Your task to perform on an android device: open app "Yahoo Mail" (install if not already installed) Image 0: 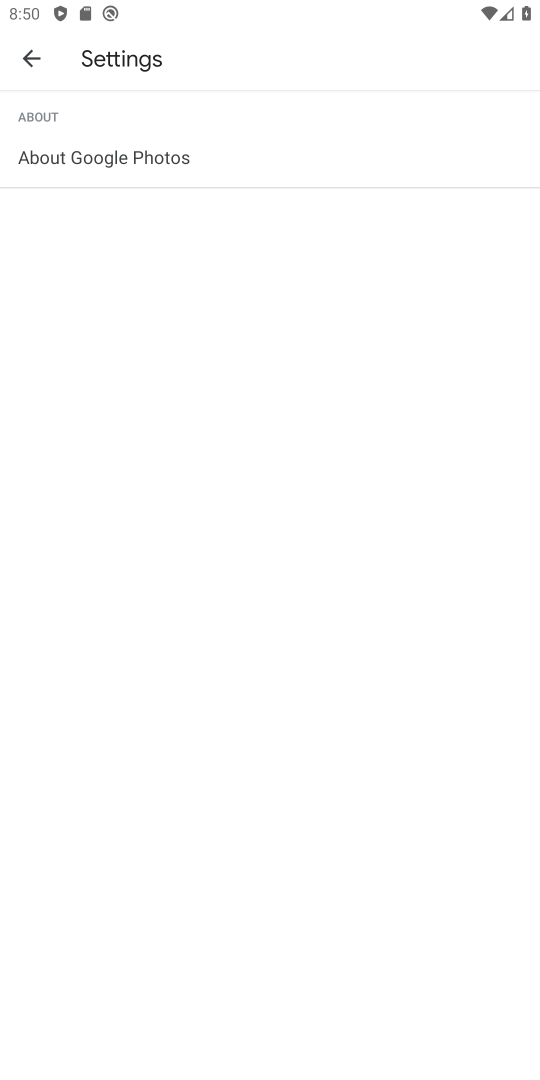
Step 0: press home button
Your task to perform on an android device: open app "Yahoo Mail" (install if not already installed) Image 1: 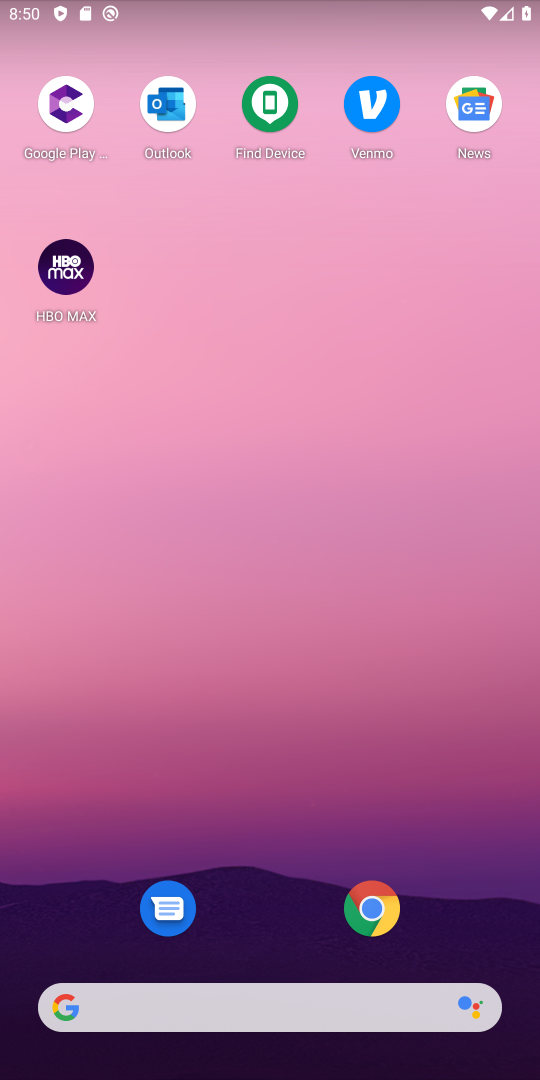
Step 1: drag from (257, 967) to (261, 422)
Your task to perform on an android device: open app "Yahoo Mail" (install if not already installed) Image 2: 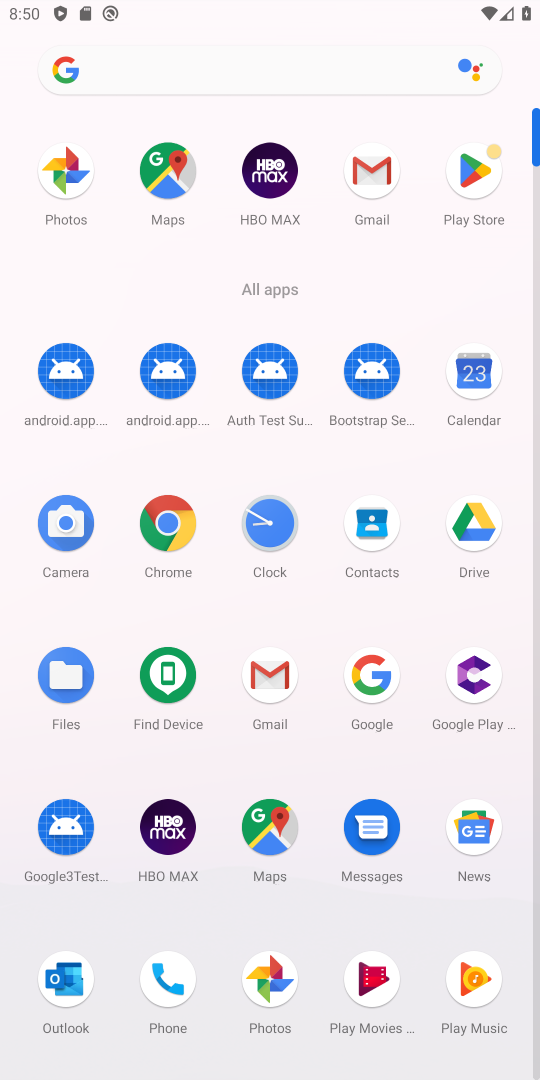
Step 2: click (482, 184)
Your task to perform on an android device: open app "Yahoo Mail" (install if not already installed) Image 3: 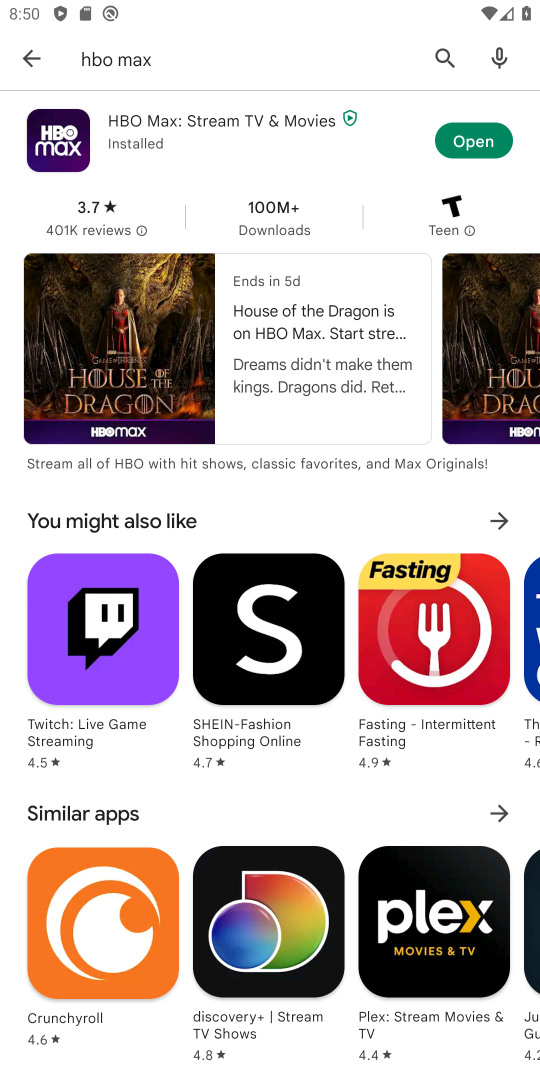
Step 3: click (167, 62)
Your task to perform on an android device: open app "Yahoo Mail" (install if not already installed) Image 4: 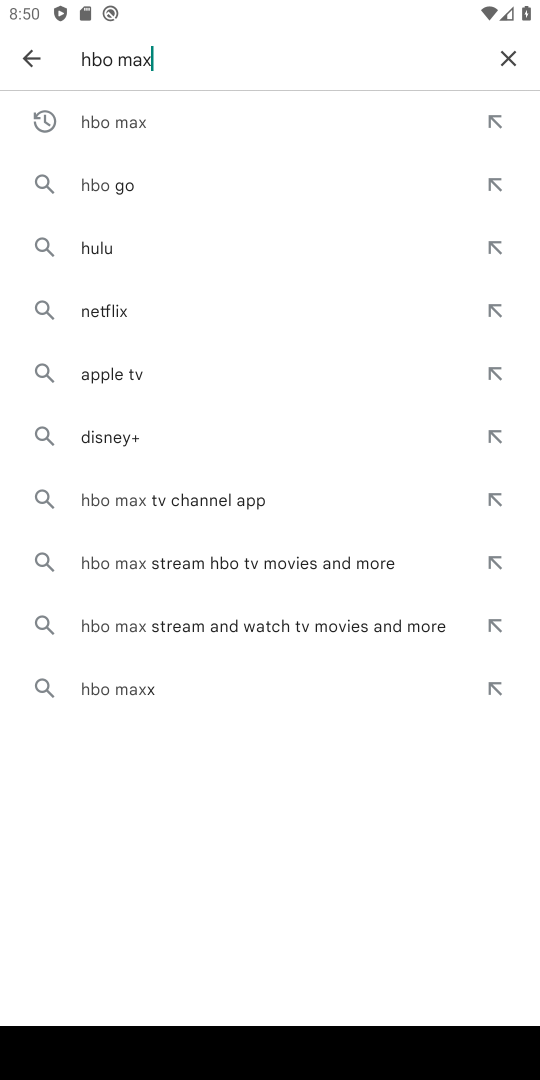
Step 4: click (504, 66)
Your task to perform on an android device: open app "Yahoo Mail" (install if not already installed) Image 5: 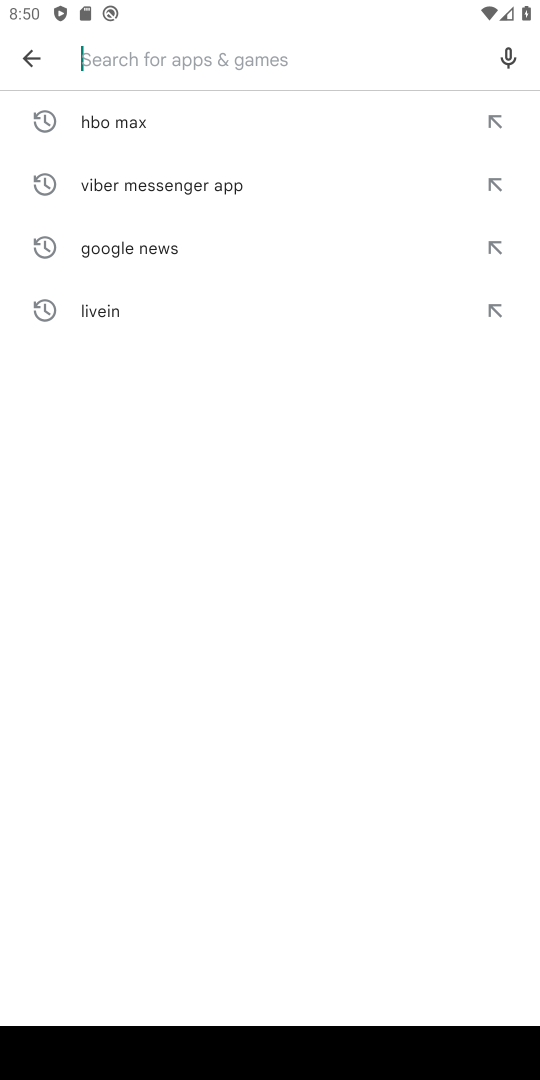
Step 5: type "yahoo mail"
Your task to perform on an android device: open app "Yahoo Mail" (install if not already installed) Image 6: 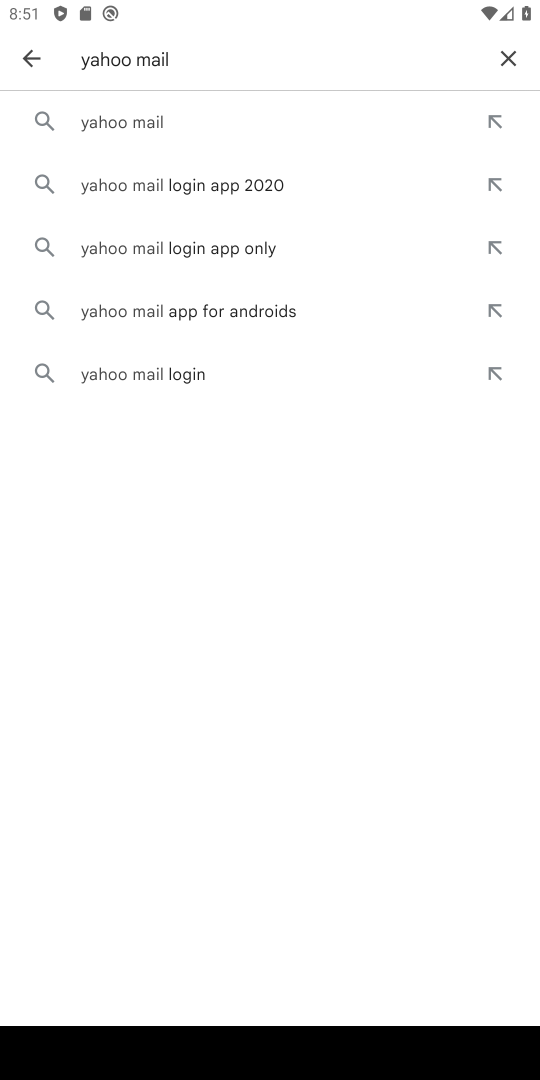
Step 6: click (121, 143)
Your task to perform on an android device: open app "Yahoo Mail" (install if not already installed) Image 7: 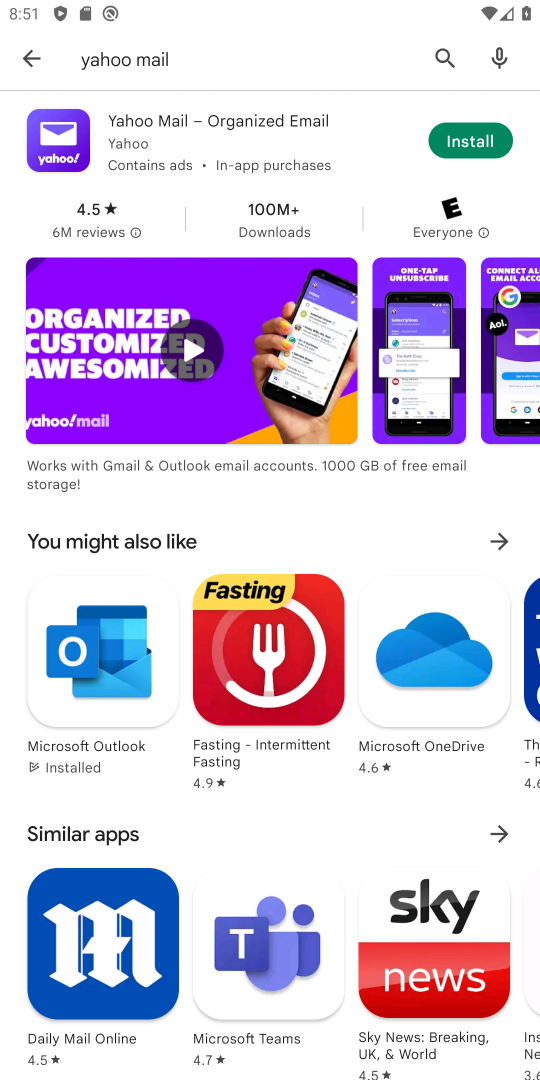
Step 7: click (449, 147)
Your task to perform on an android device: open app "Yahoo Mail" (install if not already installed) Image 8: 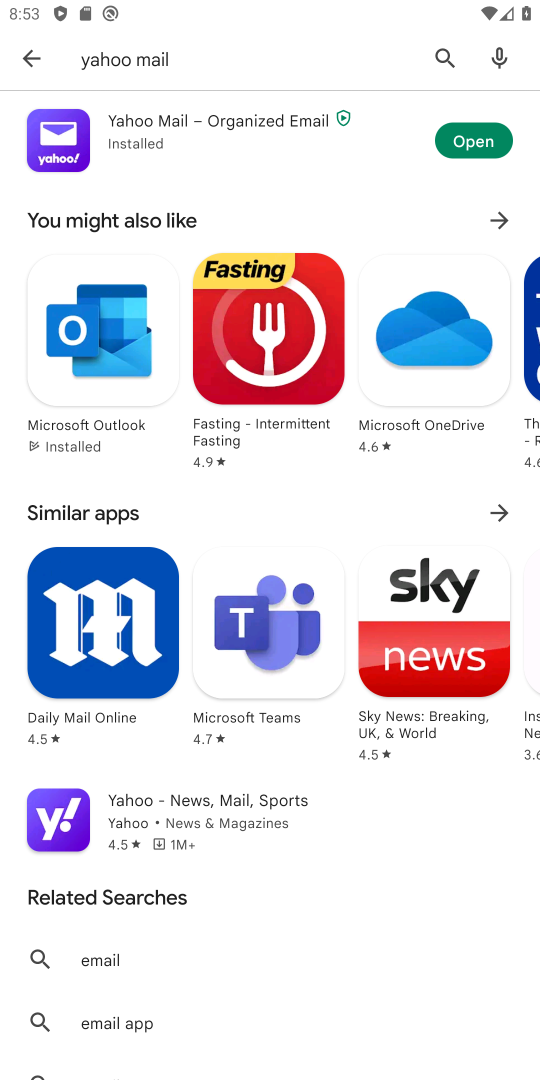
Step 8: click (480, 134)
Your task to perform on an android device: open app "Yahoo Mail" (install if not already installed) Image 9: 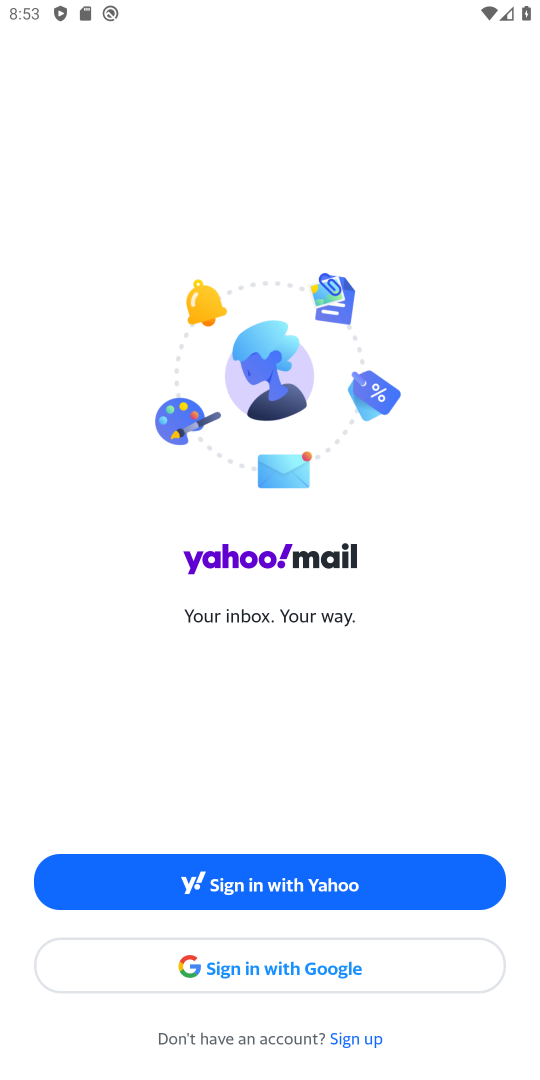
Step 9: click (327, 887)
Your task to perform on an android device: open app "Yahoo Mail" (install if not already installed) Image 10: 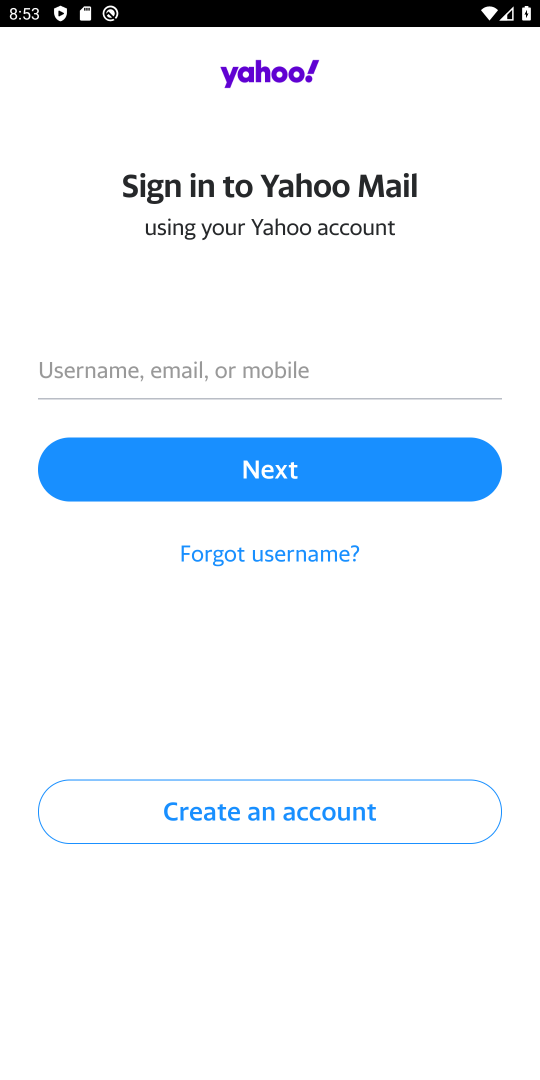
Step 10: task complete